Your task to perform on an android device: delete the emails in spam in the gmail app Image 0: 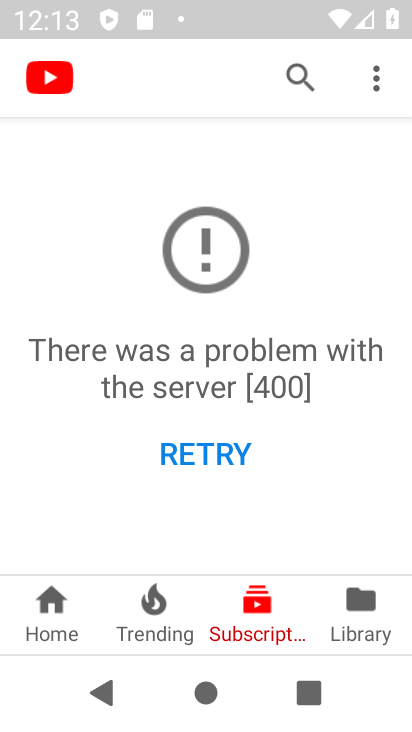
Step 0: press home button
Your task to perform on an android device: delete the emails in spam in the gmail app Image 1: 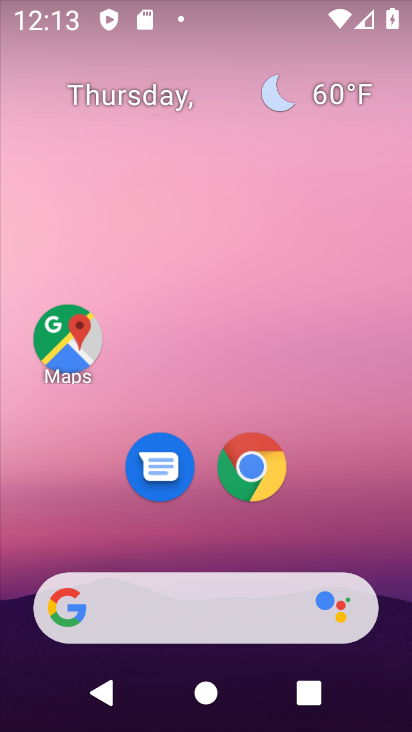
Step 1: drag from (201, 494) to (202, 84)
Your task to perform on an android device: delete the emails in spam in the gmail app Image 2: 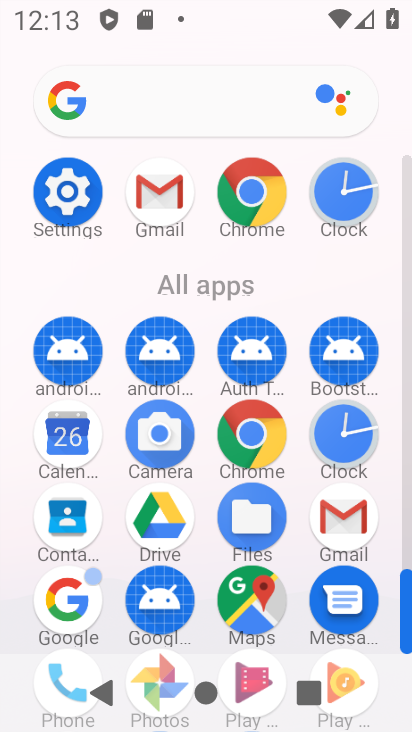
Step 2: click (348, 507)
Your task to perform on an android device: delete the emails in spam in the gmail app Image 3: 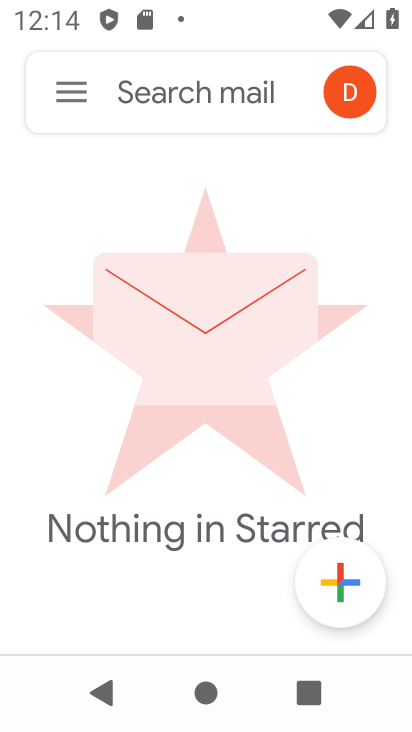
Step 3: click (92, 108)
Your task to perform on an android device: delete the emails in spam in the gmail app Image 4: 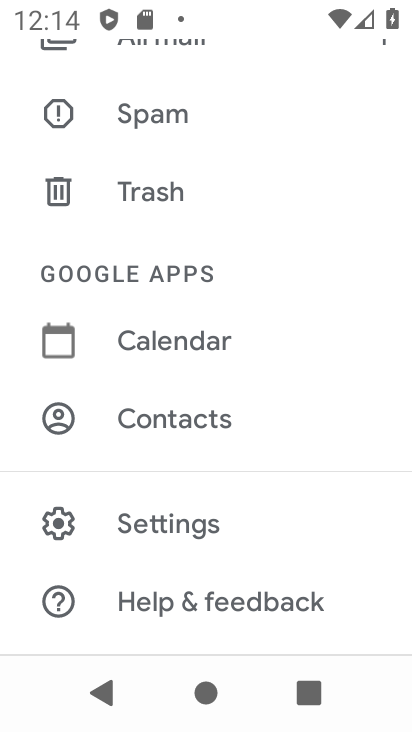
Step 4: click (160, 113)
Your task to perform on an android device: delete the emails in spam in the gmail app Image 5: 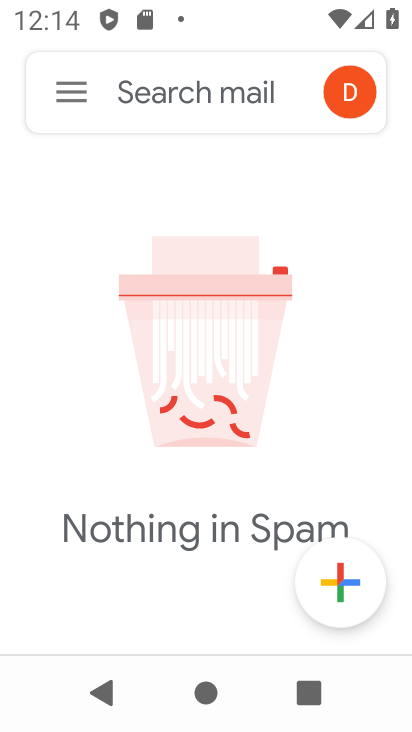
Step 5: task complete